Your task to perform on an android device: star an email in the gmail app Image 0: 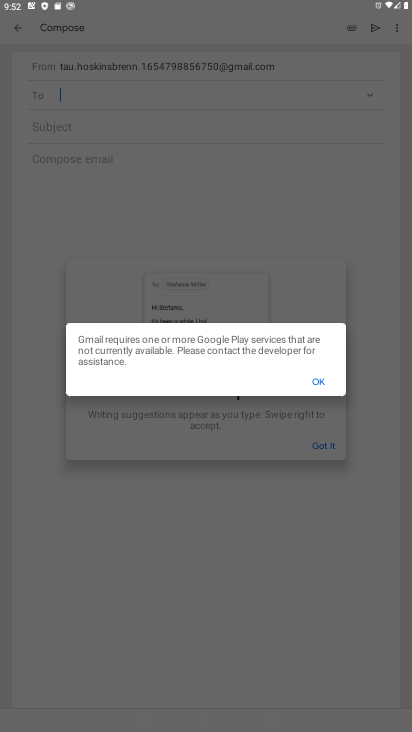
Step 0: press home button
Your task to perform on an android device: star an email in the gmail app Image 1: 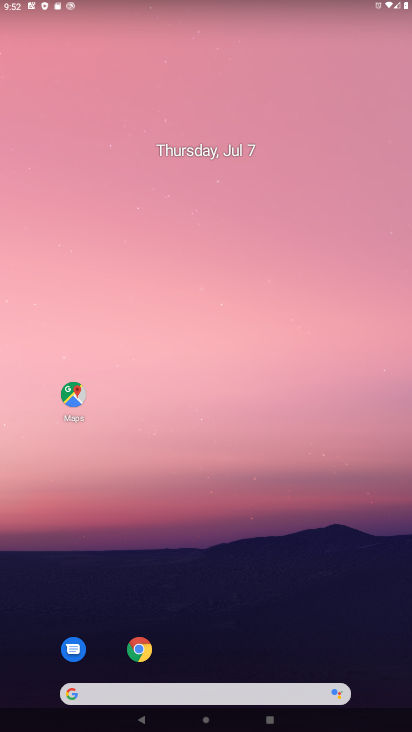
Step 1: drag from (241, 716) to (211, 82)
Your task to perform on an android device: star an email in the gmail app Image 2: 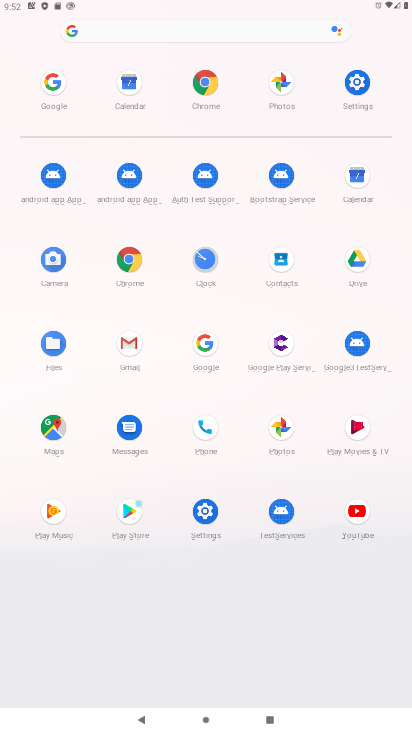
Step 2: click (135, 346)
Your task to perform on an android device: star an email in the gmail app Image 3: 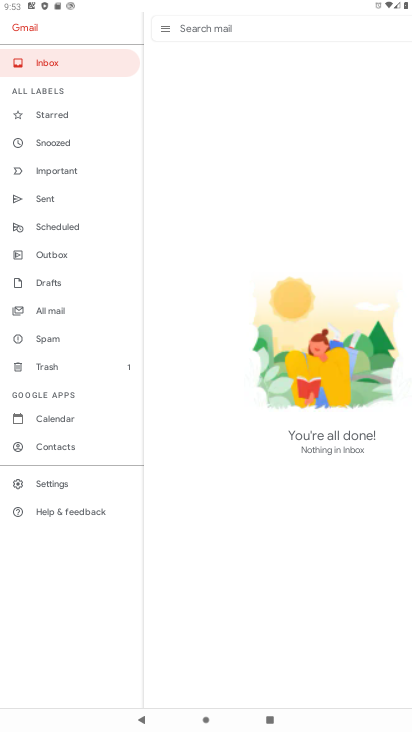
Step 3: click (70, 64)
Your task to perform on an android device: star an email in the gmail app Image 4: 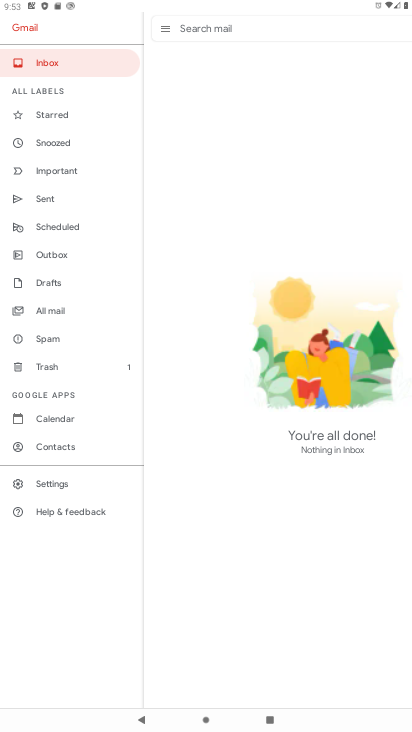
Step 4: task complete